Your task to perform on an android device: open wifi settings Image 0: 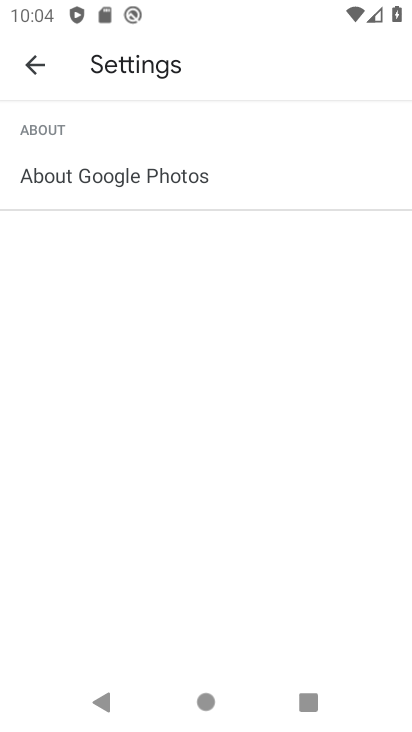
Step 0: press back button
Your task to perform on an android device: open wifi settings Image 1: 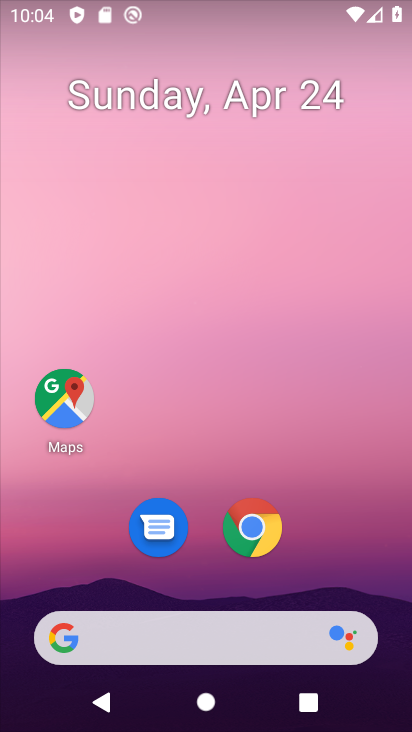
Step 1: drag from (95, 20) to (113, 468)
Your task to perform on an android device: open wifi settings Image 2: 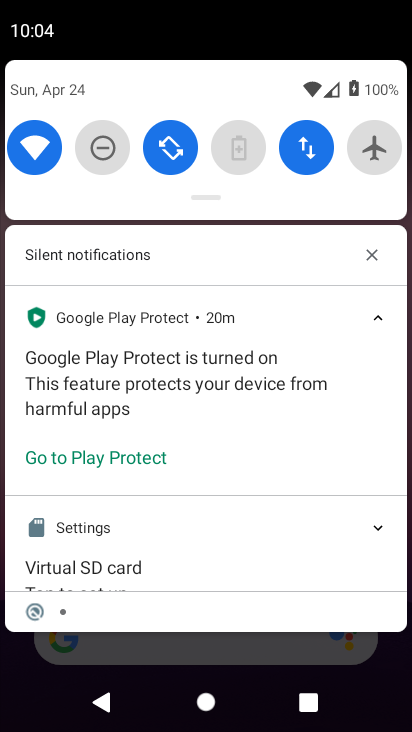
Step 2: click (35, 165)
Your task to perform on an android device: open wifi settings Image 3: 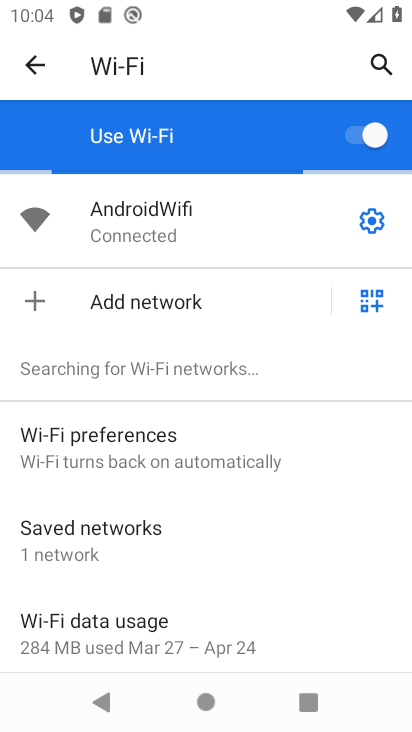
Step 3: task complete